Your task to perform on an android device: turn smart compose on in the gmail app Image 0: 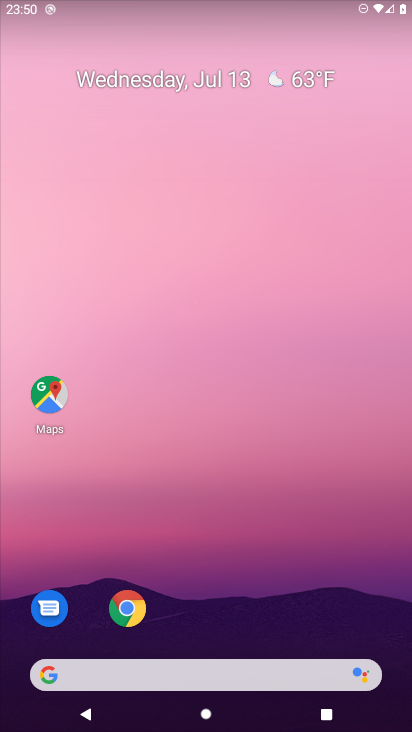
Step 0: drag from (236, 642) to (232, 216)
Your task to perform on an android device: turn smart compose on in the gmail app Image 1: 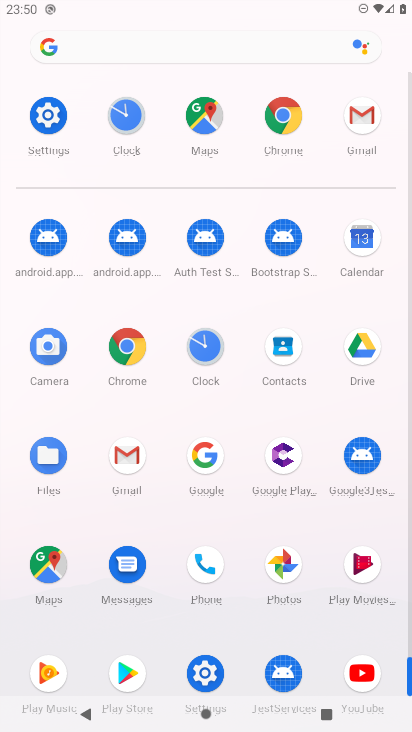
Step 1: click (366, 112)
Your task to perform on an android device: turn smart compose on in the gmail app Image 2: 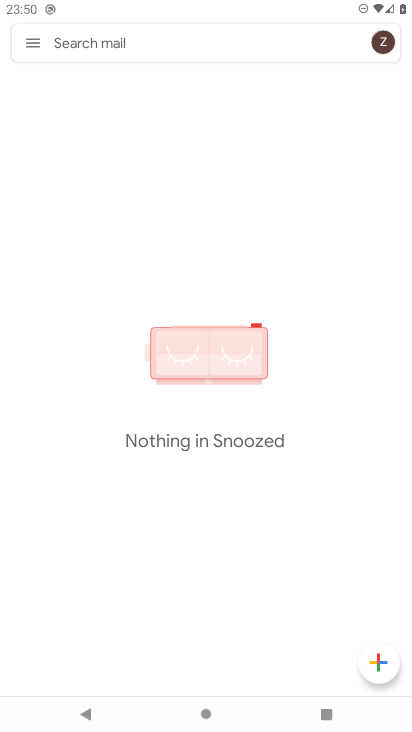
Step 2: click (36, 47)
Your task to perform on an android device: turn smart compose on in the gmail app Image 3: 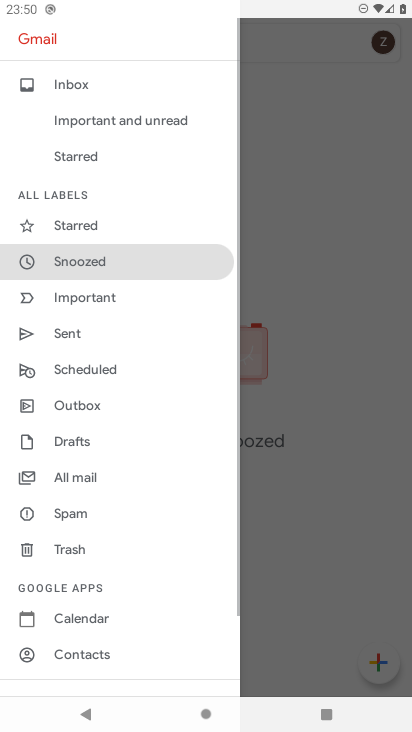
Step 3: drag from (178, 620) to (149, 188)
Your task to perform on an android device: turn smart compose on in the gmail app Image 4: 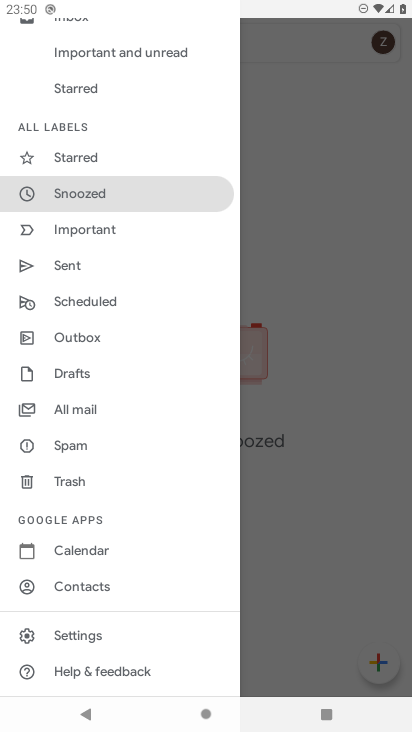
Step 4: click (70, 634)
Your task to perform on an android device: turn smart compose on in the gmail app Image 5: 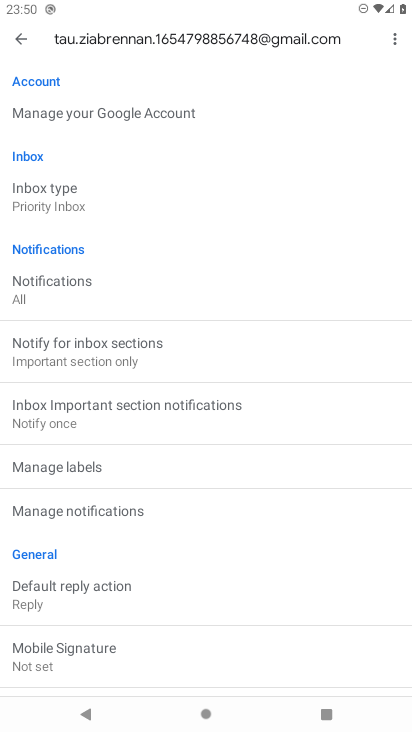
Step 5: task complete